Your task to perform on an android device: find snoozed emails in the gmail app Image 0: 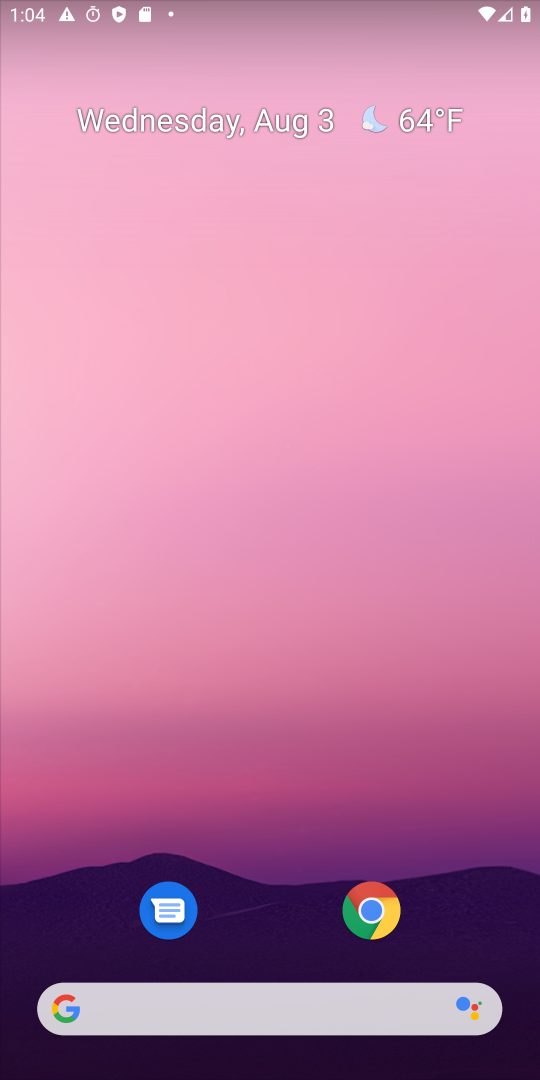
Step 0: drag from (293, 799) to (284, 309)
Your task to perform on an android device: find snoozed emails in the gmail app Image 1: 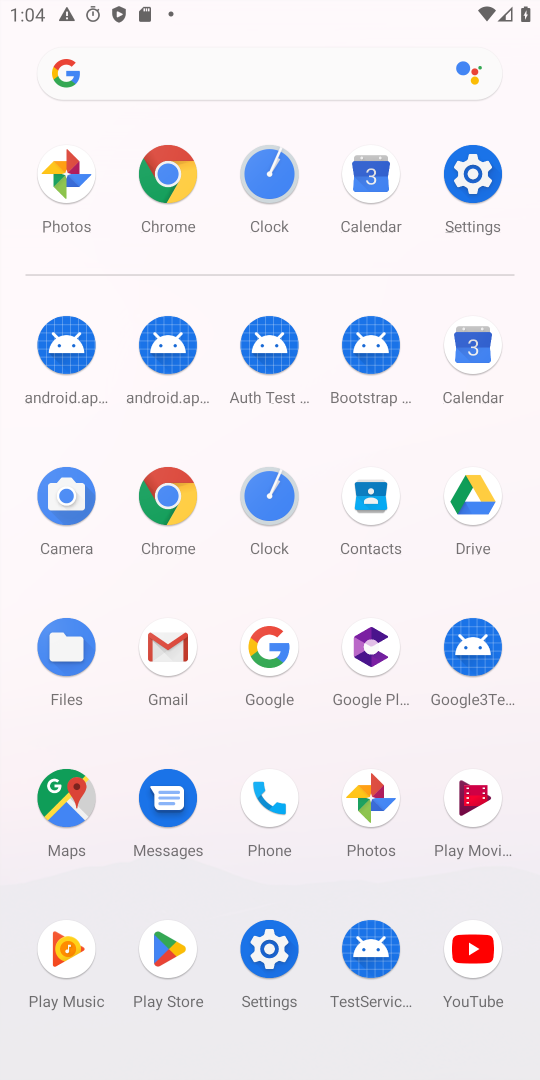
Step 1: click (168, 642)
Your task to perform on an android device: find snoozed emails in the gmail app Image 2: 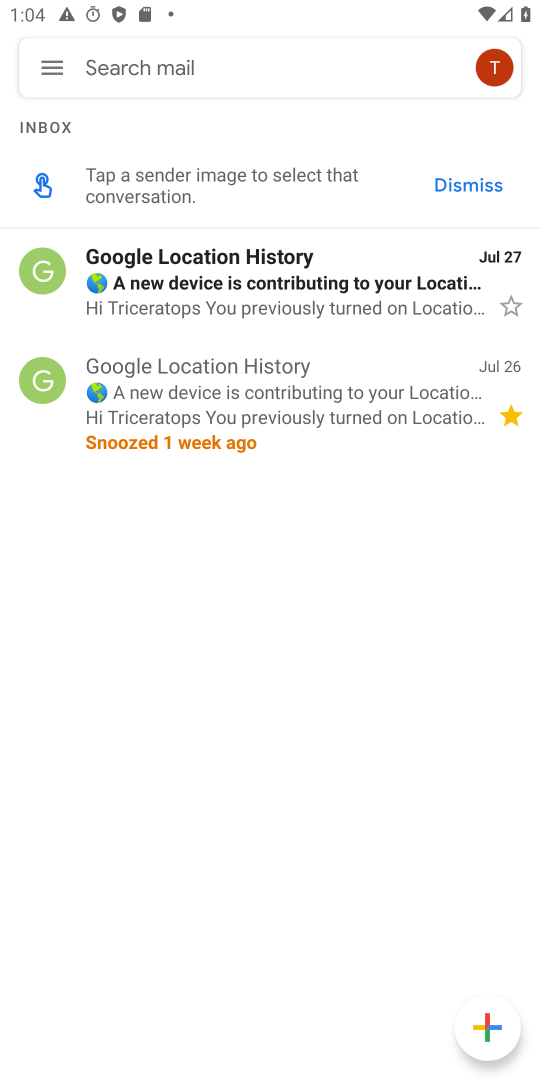
Step 2: click (63, 67)
Your task to perform on an android device: find snoozed emails in the gmail app Image 3: 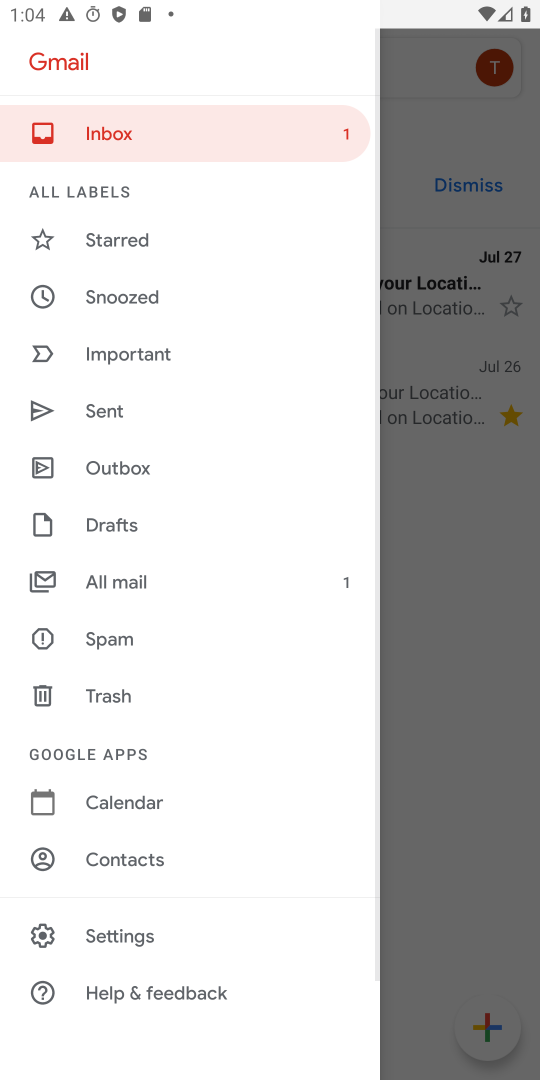
Step 3: click (532, 662)
Your task to perform on an android device: find snoozed emails in the gmail app Image 4: 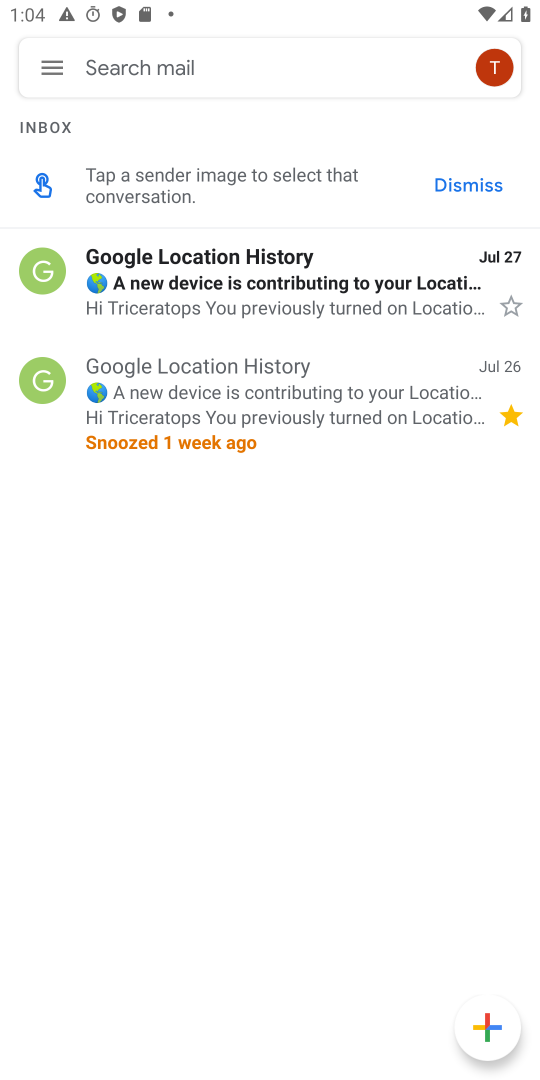
Step 4: click (277, 406)
Your task to perform on an android device: find snoozed emails in the gmail app Image 5: 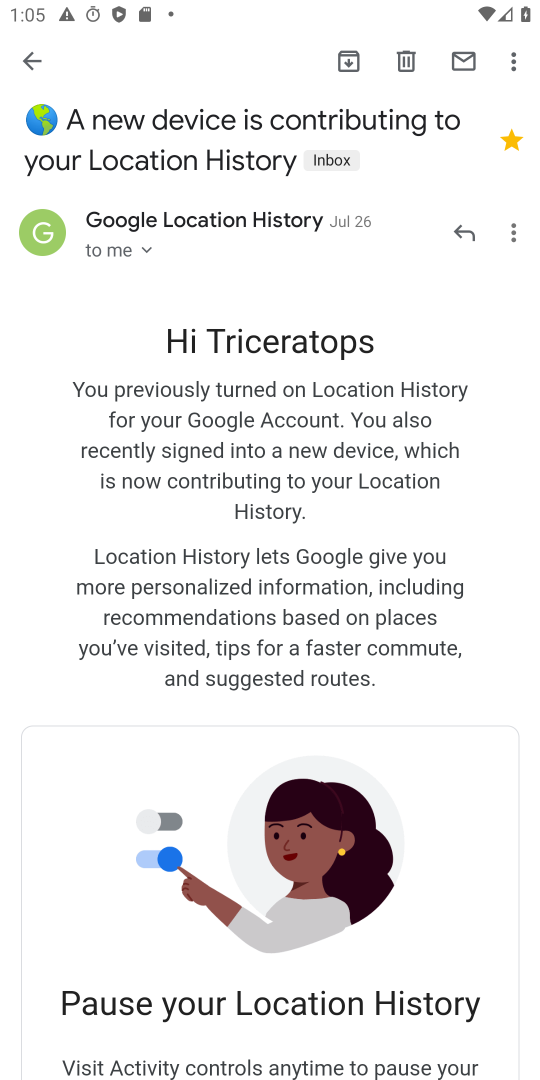
Step 5: task complete